Your task to perform on an android device: Open location settings Image 0: 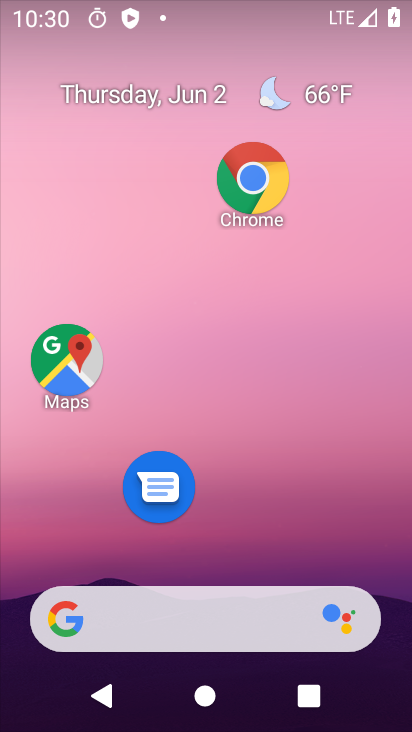
Step 0: drag from (241, 726) to (233, 0)
Your task to perform on an android device: Open location settings Image 1: 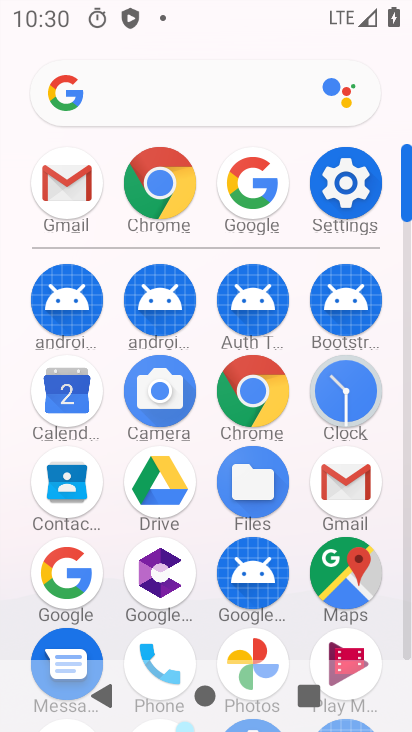
Step 1: click (349, 189)
Your task to perform on an android device: Open location settings Image 2: 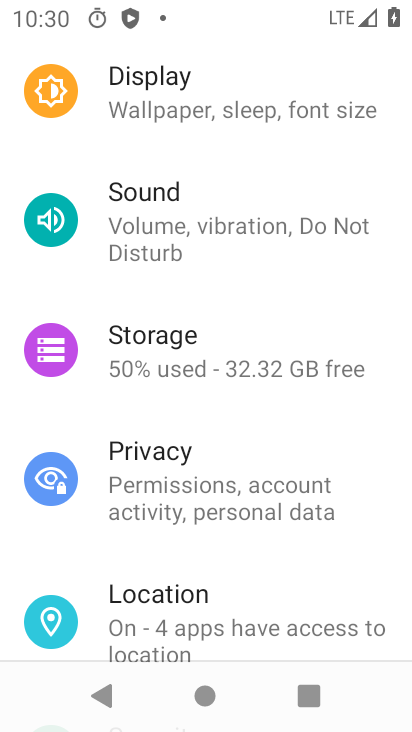
Step 2: click (171, 618)
Your task to perform on an android device: Open location settings Image 3: 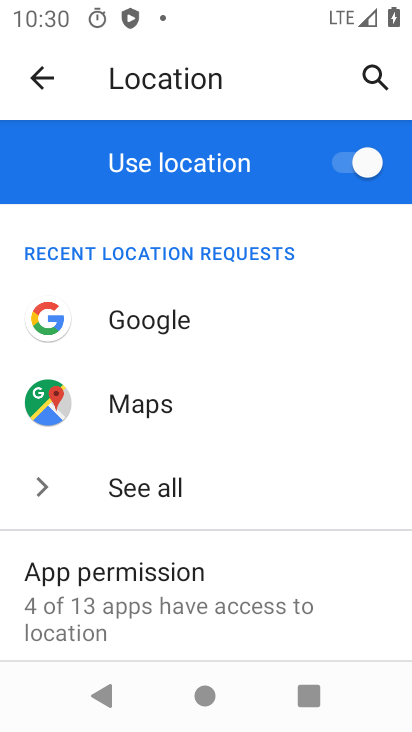
Step 3: task complete